Your task to perform on an android device: Open the stopwatch Image 0: 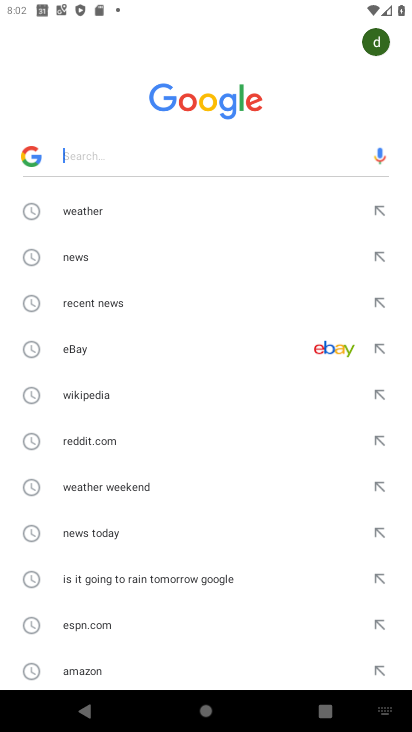
Step 0: press home button
Your task to perform on an android device: Open the stopwatch Image 1: 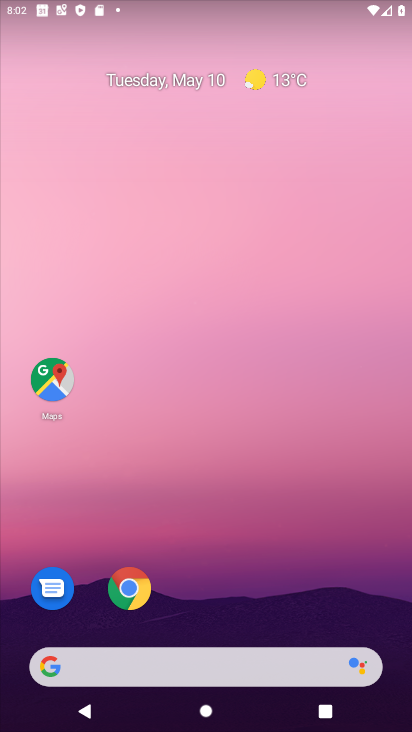
Step 1: drag from (189, 615) to (277, 158)
Your task to perform on an android device: Open the stopwatch Image 2: 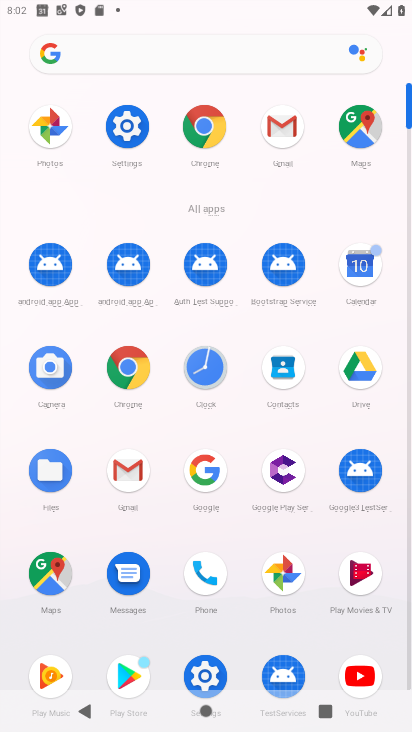
Step 2: click (198, 368)
Your task to perform on an android device: Open the stopwatch Image 3: 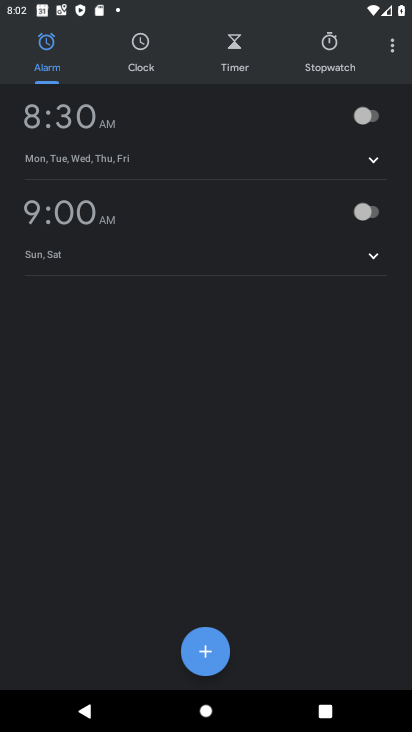
Step 3: click (334, 30)
Your task to perform on an android device: Open the stopwatch Image 4: 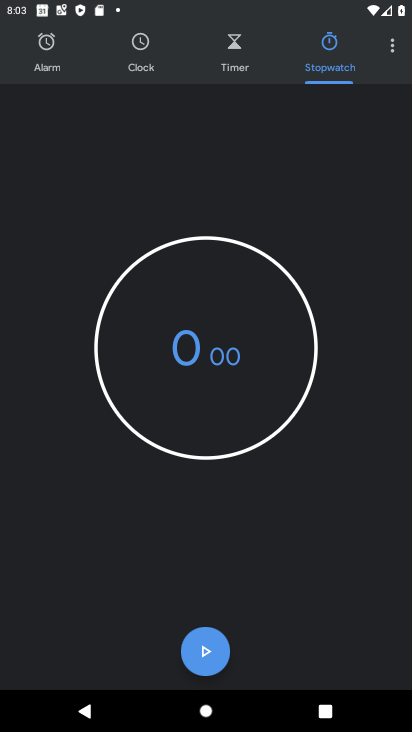
Step 4: task complete